Your task to perform on an android device: manage bookmarks in the chrome app Image 0: 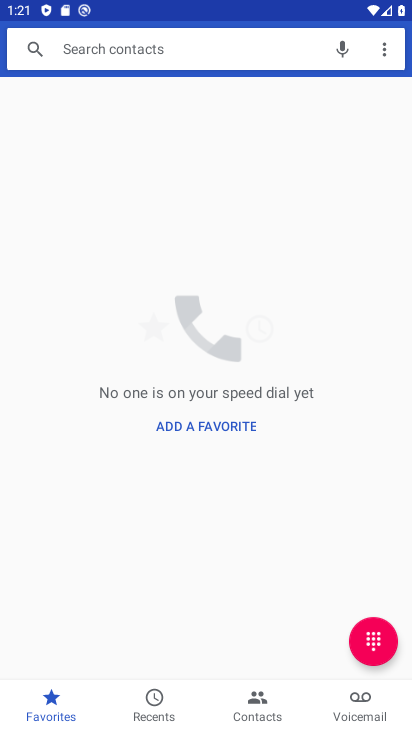
Step 0: press home button
Your task to perform on an android device: manage bookmarks in the chrome app Image 1: 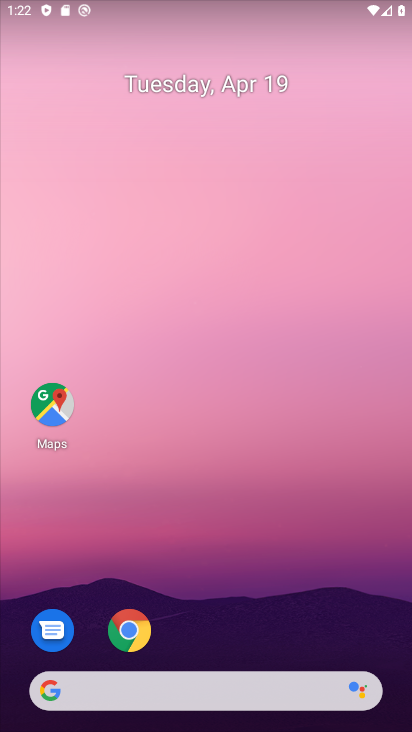
Step 1: drag from (195, 531) to (185, 23)
Your task to perform on an android device: manage bookmarks in the chrome app Image 2: 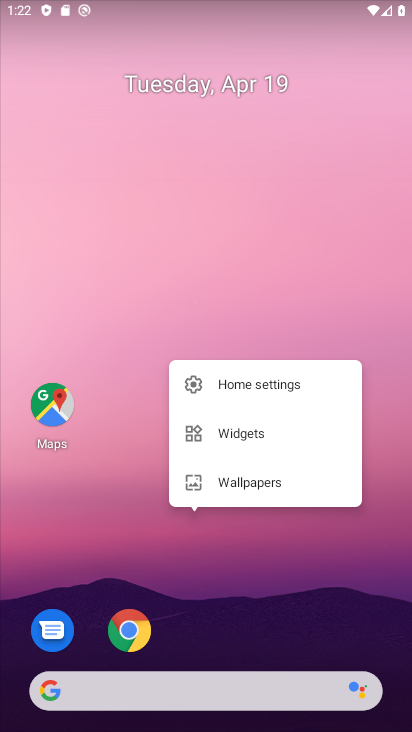
Step 2: drag from (144, 449) to (119, 73)
Your task to perform on an android device: manage bookmarks in the chrome app Image 3: 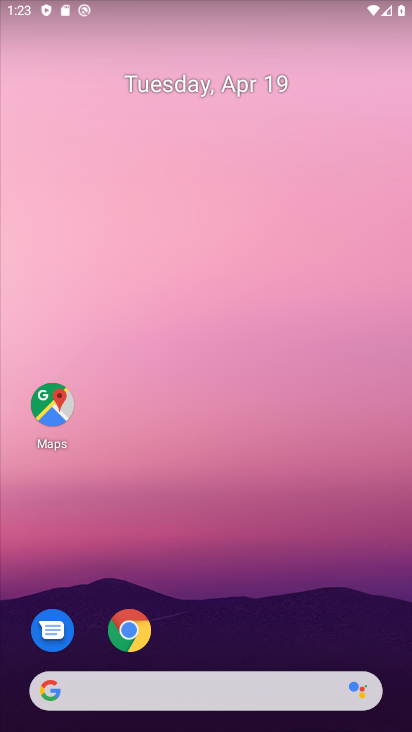
Step 3: click (129, 624)
Your task to perform on an android device: manage bookmarks in the chrome app Image 4: 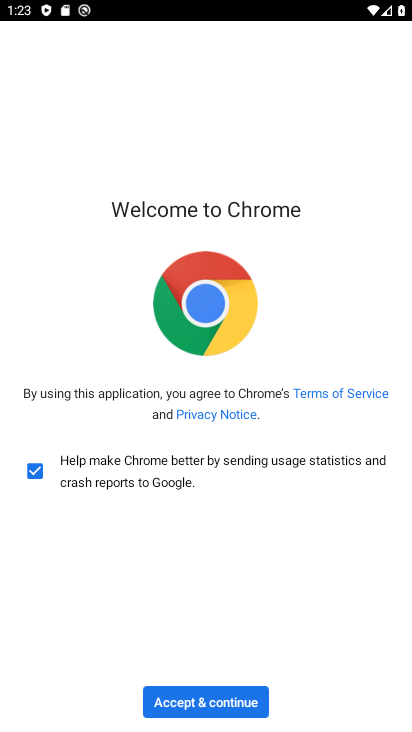
Step 4: click (222, 698)
Your task to perform on an android device: manage bookmarks in the chrome app Image 5: 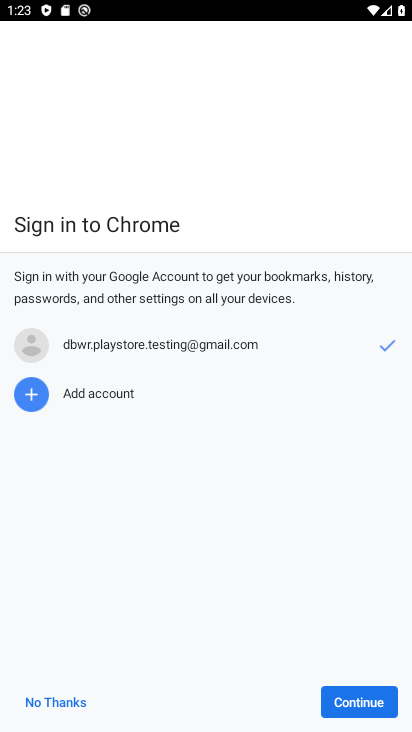
Step 5: click (341, 698)
Your task to perform on an android device: manage bookmarks in the chrome app Image 6: 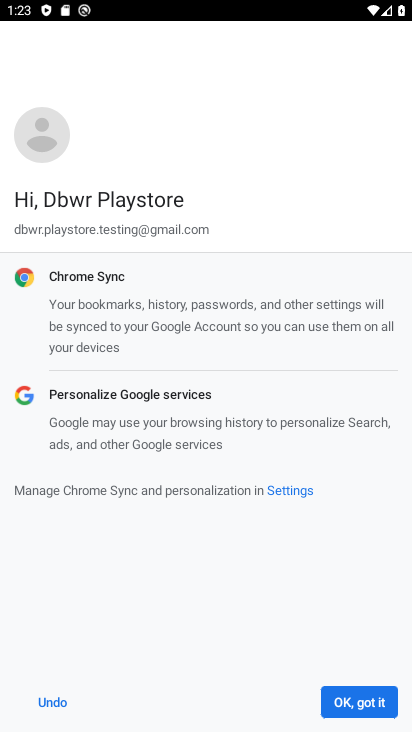
Step 6: click (341, 698)
Your task to perform on an android device: manage bookmarks in the chrome app Image 7: 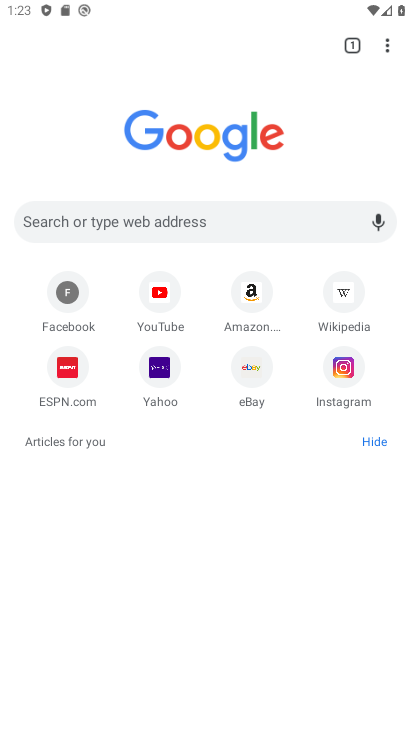
Step 7: click (386, 44)
Your task to perform on an android device: manage bookmarks in the chrome app Image 8: 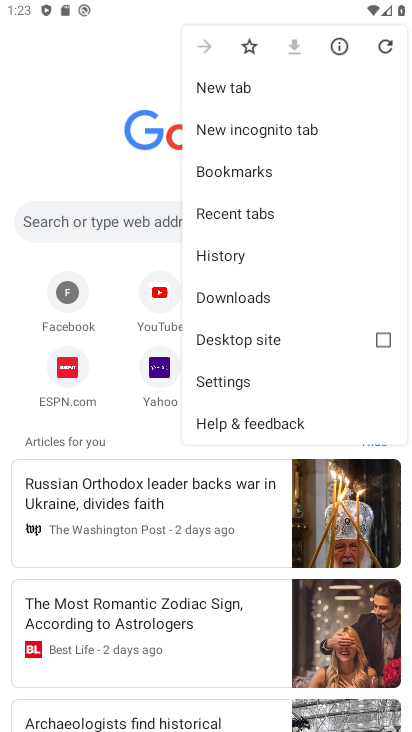
Step 8: click (250, 176)
Your task to perform on an android device: manage bookmarks in the chrome app Image 9: 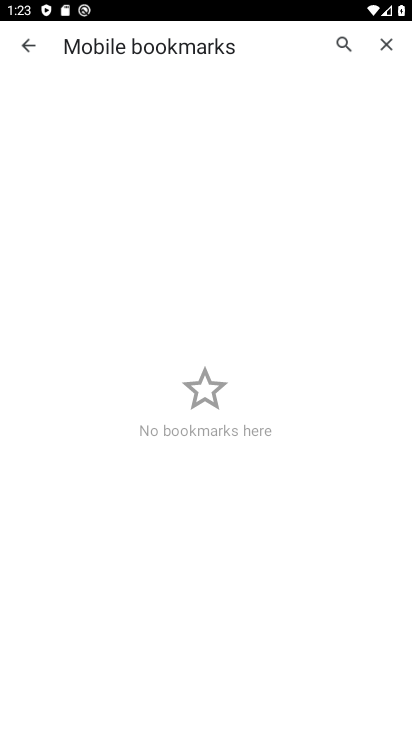
Step 9: task complete